Your task to perform on an android device: turn off sleep mode Image 0: 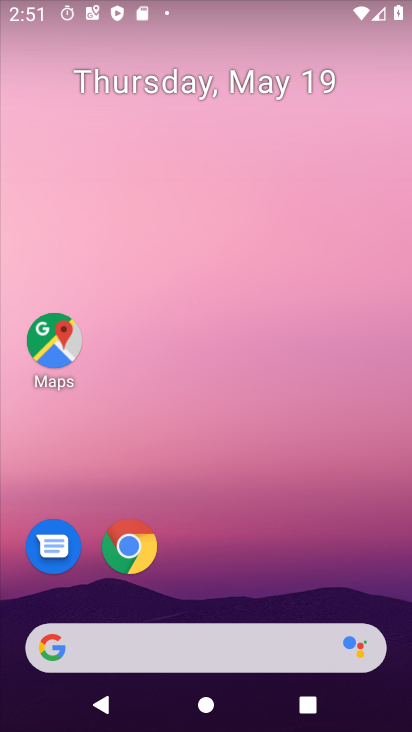
Step 0: drag from (131, 605) to (379, 24)
Your task to perform on an android device: turn off sleep mode Image 1: 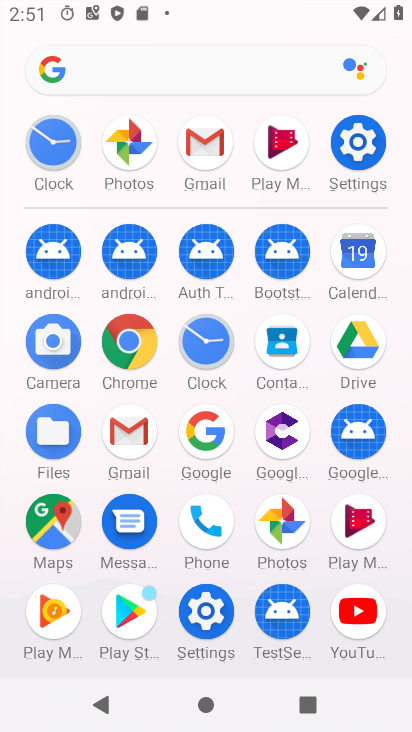
Step 1: click (356, 148)
Your task to perform on an android device: turn off sleep mode Image 2: 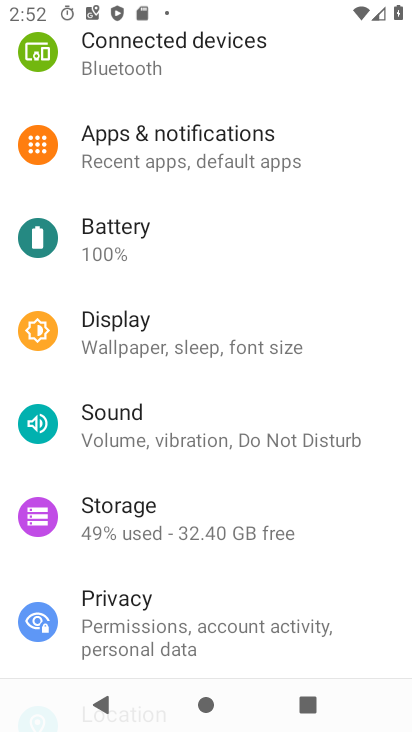
Step 2: task complete